Your task to perform on an android device: Search for pizza restaurants on Maps Image 0: 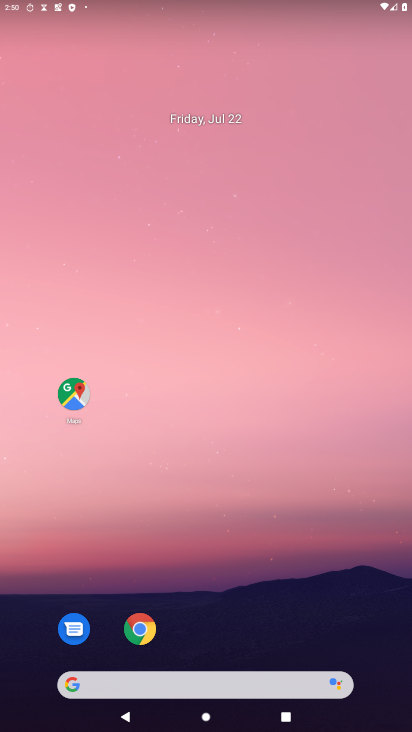
Step 0: drag from (256, 569) to (406, 618)
Your task to perform on an android device: Search for pizza restaurants on Maps Image 1: 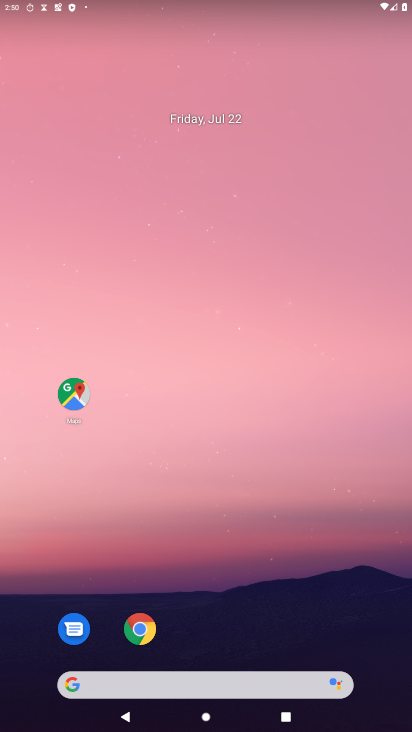
Step 1: drag from (248, 681) to (241, 15)
Your task to perform on an android device: Search for pizza restaurants on Maps Image 2: 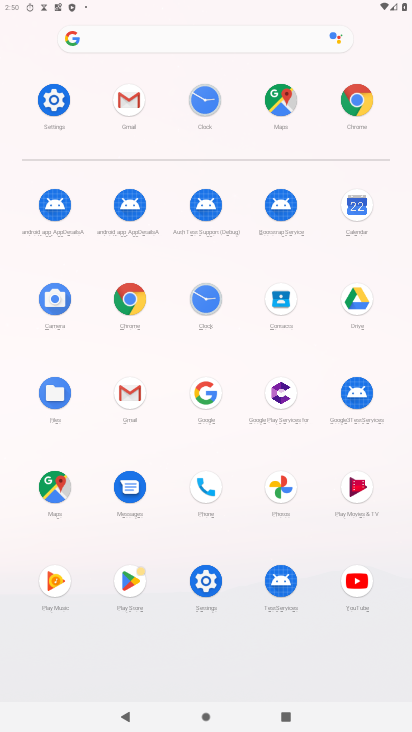
Step 2: click (53, 480)
Your task to perform on an android device: Search for pizza restaurants on Maps Image 3: 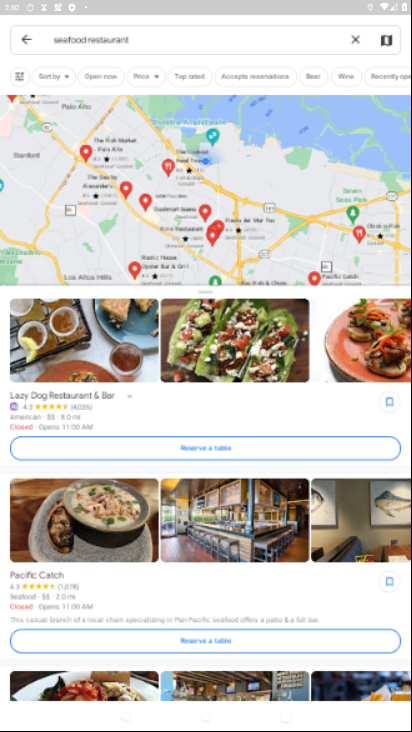
Step 3: press back button
Your task to perform on an android device: Search for pizza restaurants on Maps Image 4: 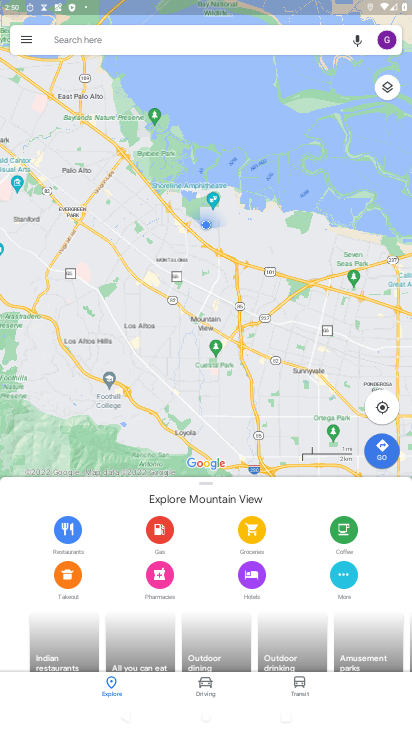
Step 4: click (249, 42)
Your task to perform on an android device: Search for pizza restaurants on Maps Image 5: 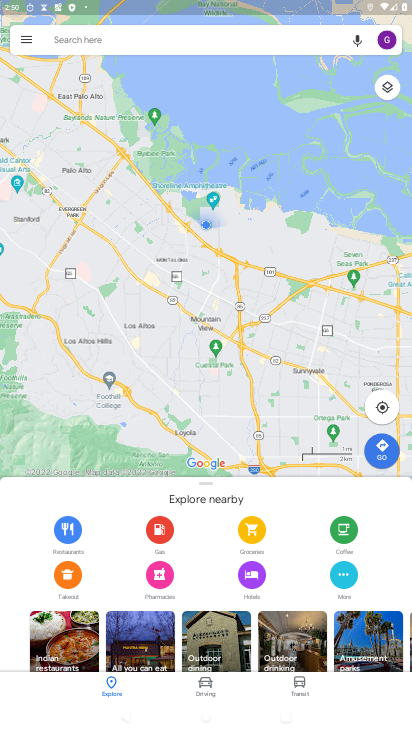
Step 5: click (249, 42)
Your task to perform on an android device: Search for pizza restaurants on Maps Image 6: 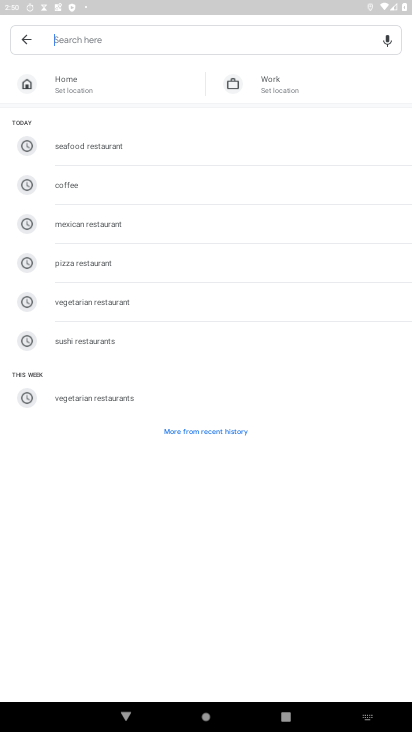
Step 6: click (124, 270)
Your task to perform on an android device: Search for pizza restaurants on Maps Image 7: 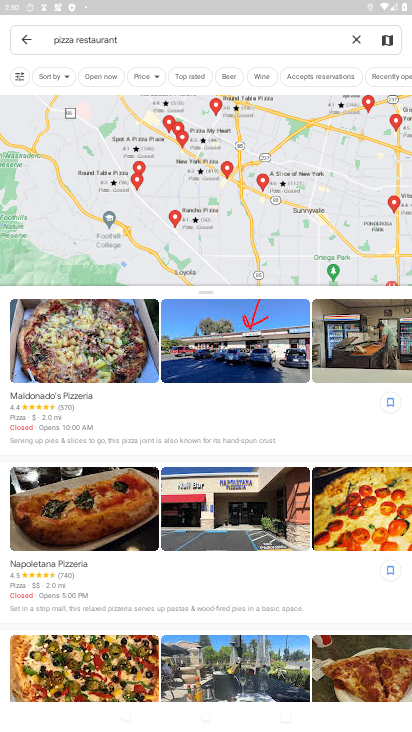
Step 7: task complete